Your task to perform on an android device: View the shopping cart on target.com. Add "logitech g910" to the cart on target.com, then select checkout. Image 0: 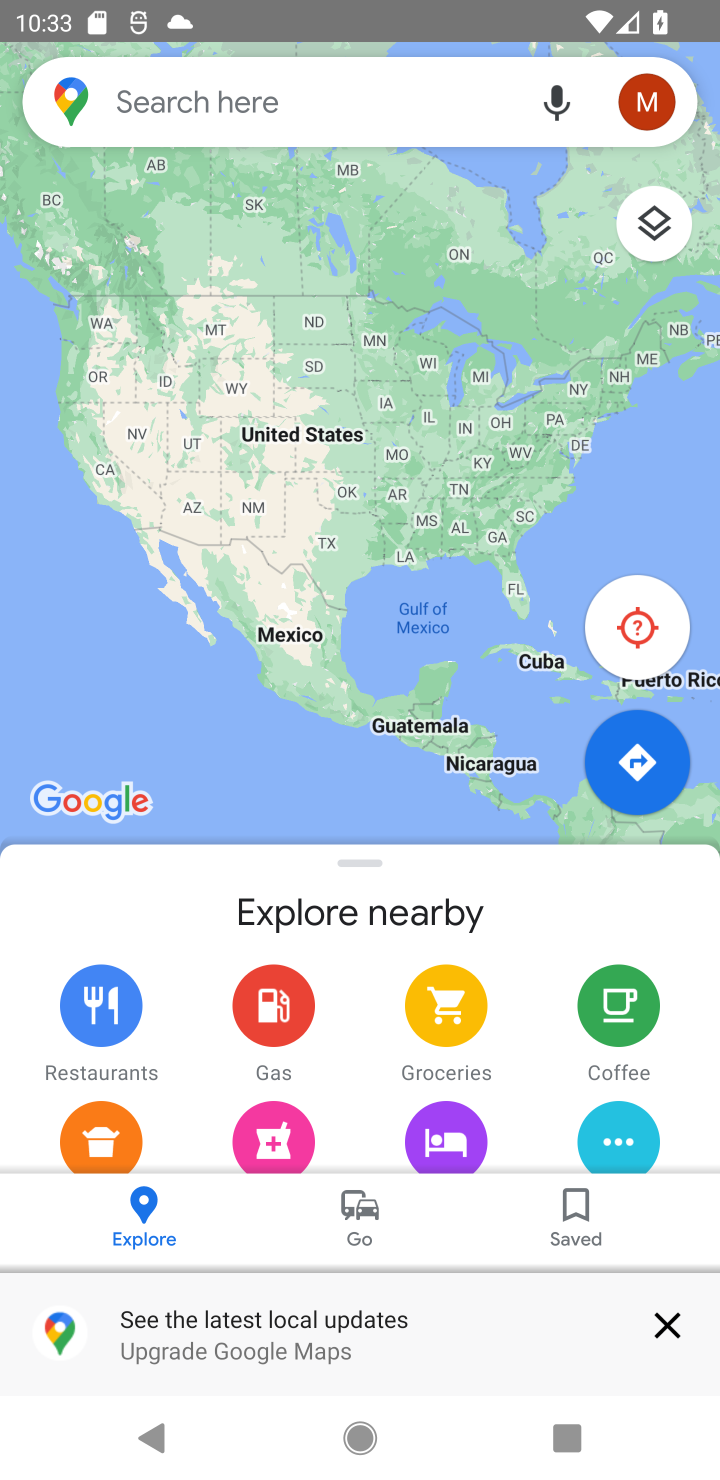
Step 0: press home button
Your task to perform on an android device: View the shopping cart on target.com. Add "logitech g910" to the cart on target.com, then select checkout. Image 1: 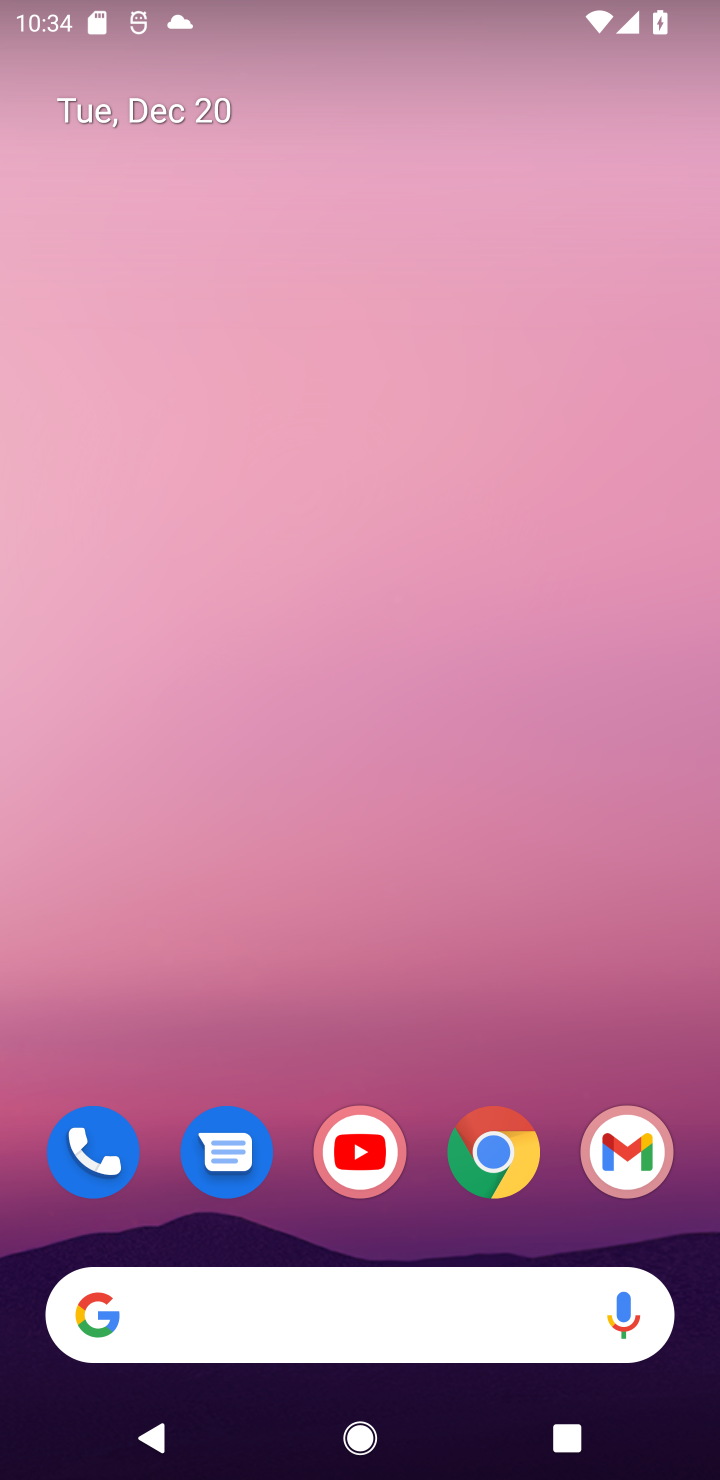
Step 1: click (489, 1171)
Your task to perform on an android device: View the shopping cart on target.com. Add "logitech g910" to the cart on target.com, then select checkout. Image 2: 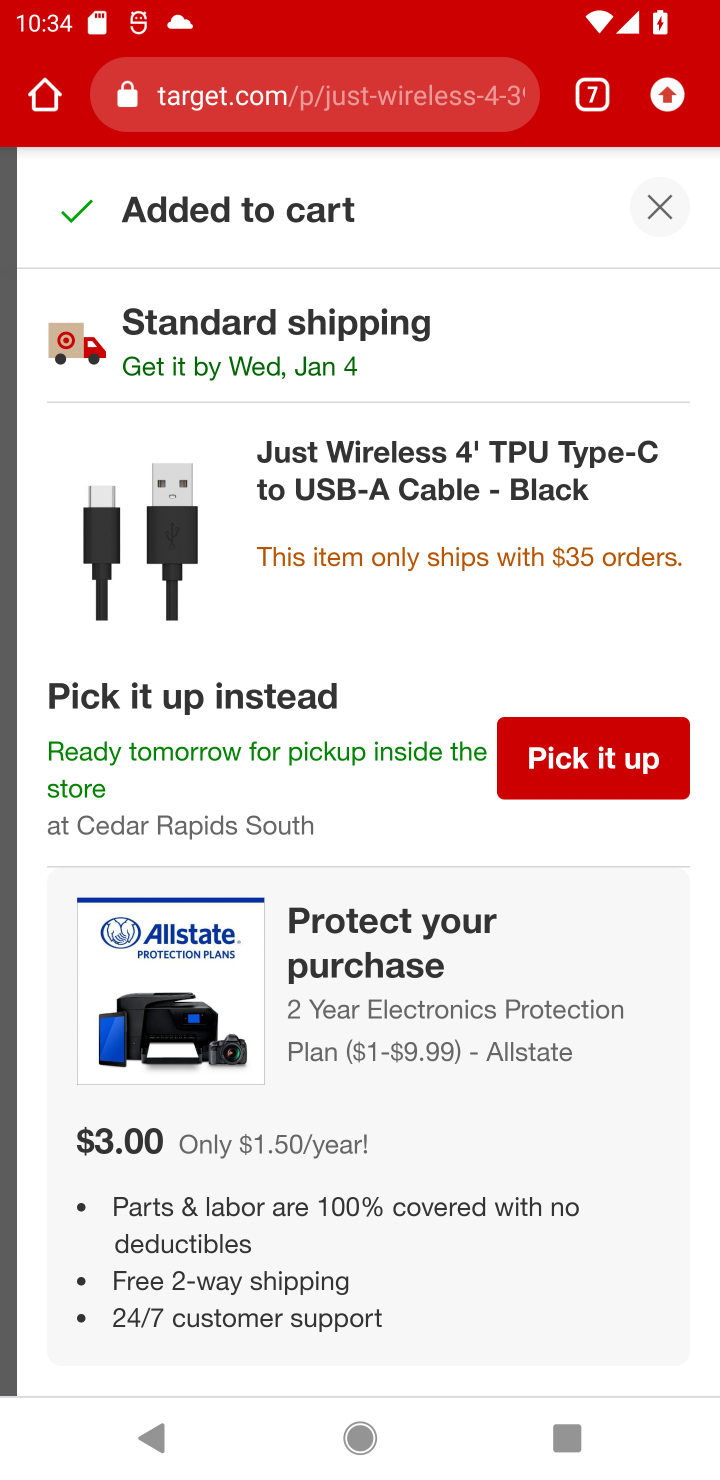
Step 2: click (655, 198)
Your task to perform on an android device: View the shopping cart on target.com. Add "logitech g910" to the cart on target.com, then select checkout. Image 3: 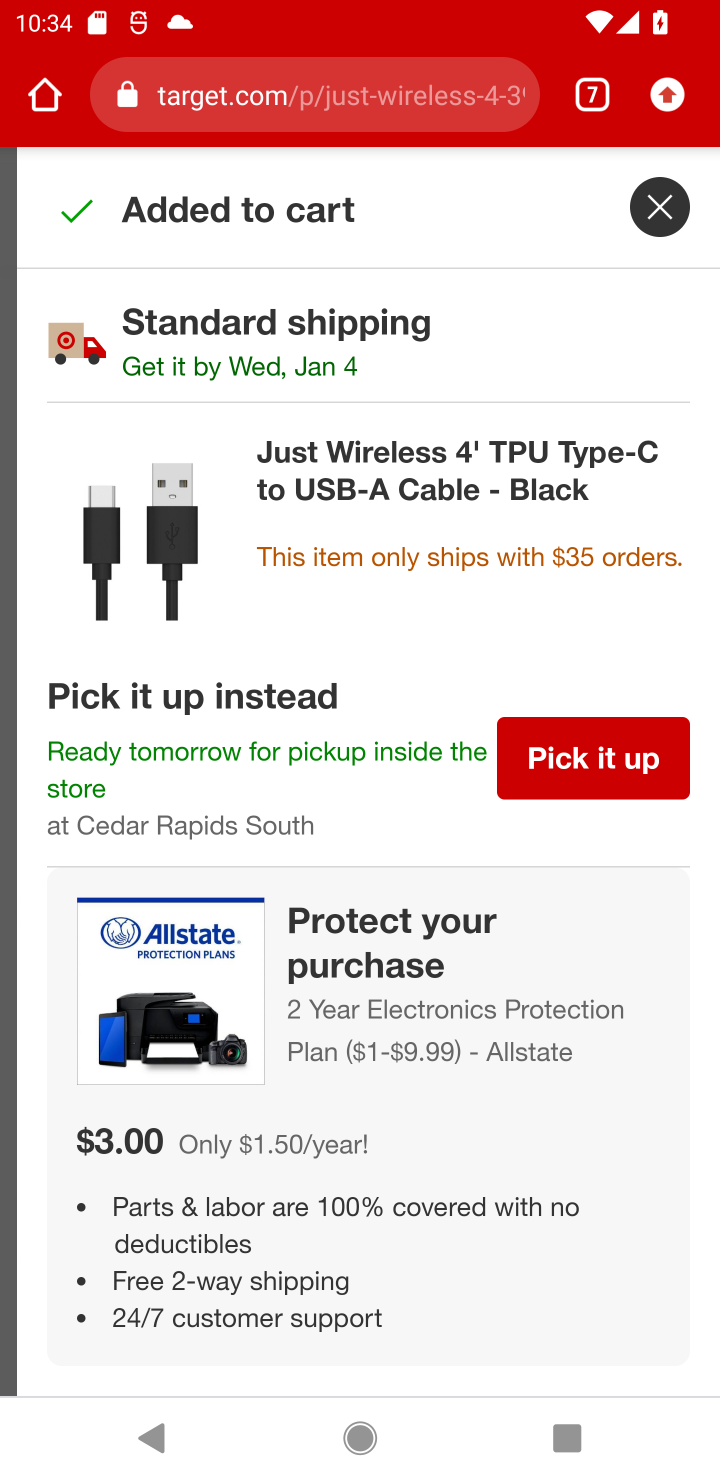
Step 3: click (642, 192)
Your task to perform on an android device: View the shopping cart on target.com. Add "logitech g910" to the cart on target.com, then select checkout. Image 4: 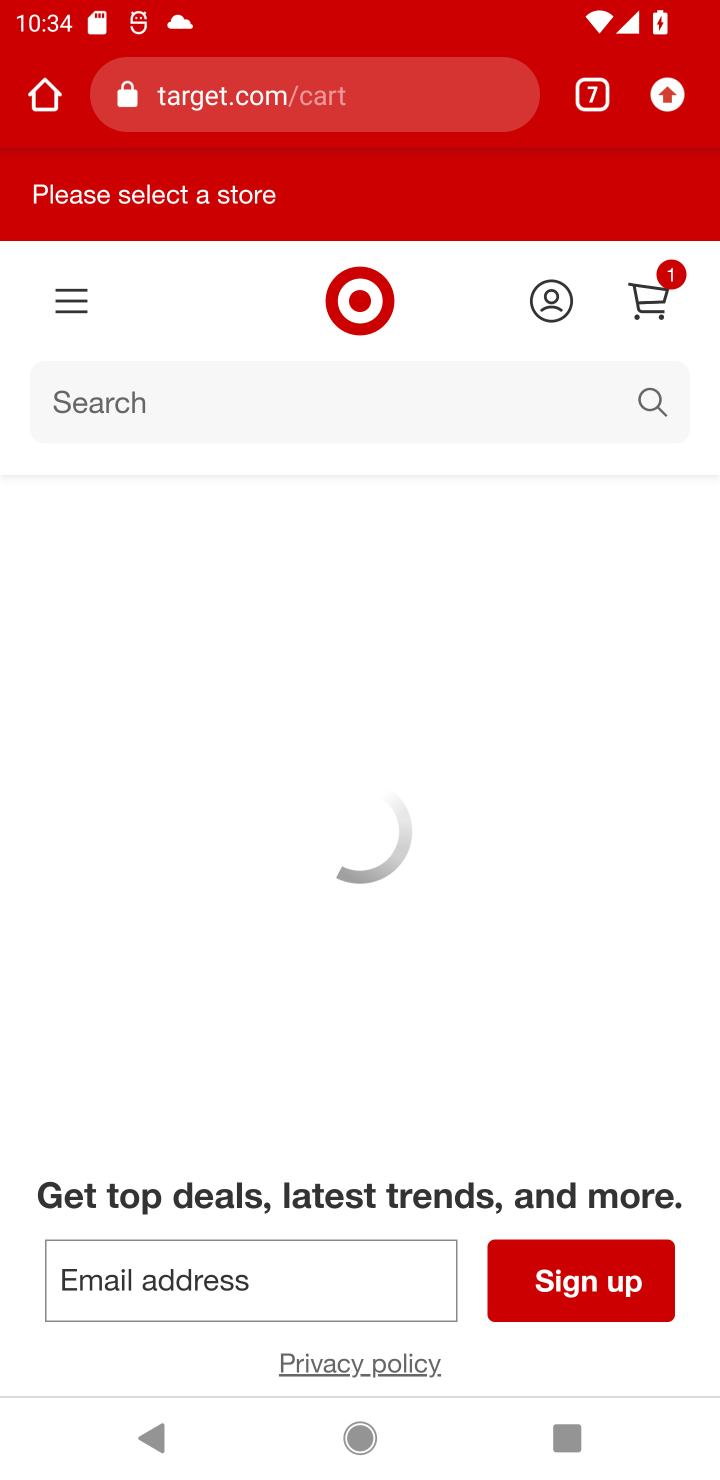
Step 4: click (294, 396)
Your task to perform on an android device: View the shopping cart on target.com. Add "logitech g910" to the cart on target.com, then select checkout. Image 5: 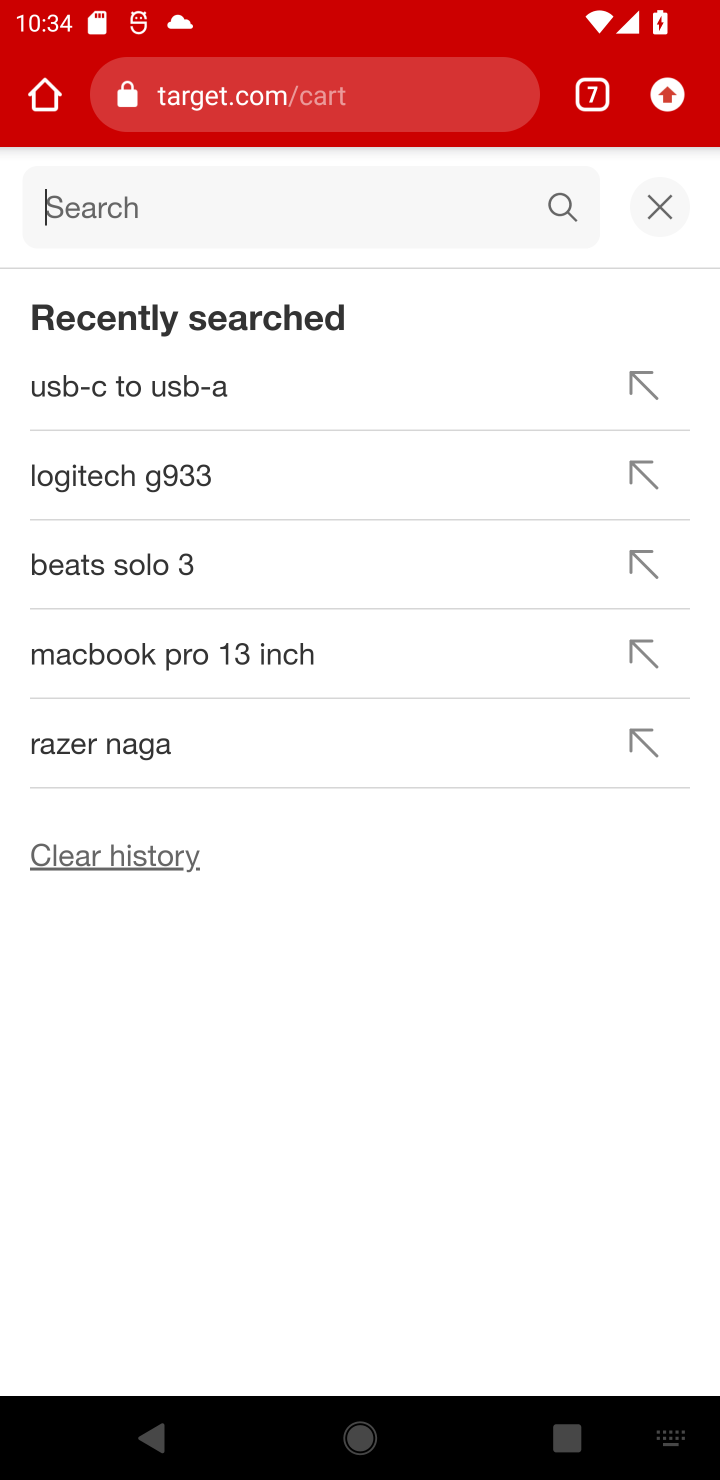
Step 5: type "logitech g910"
Your task to perform on an android device: View the shopping cart on target.com. Add "logitech g910" to the cart on target.com, then select checkout. Image 6: 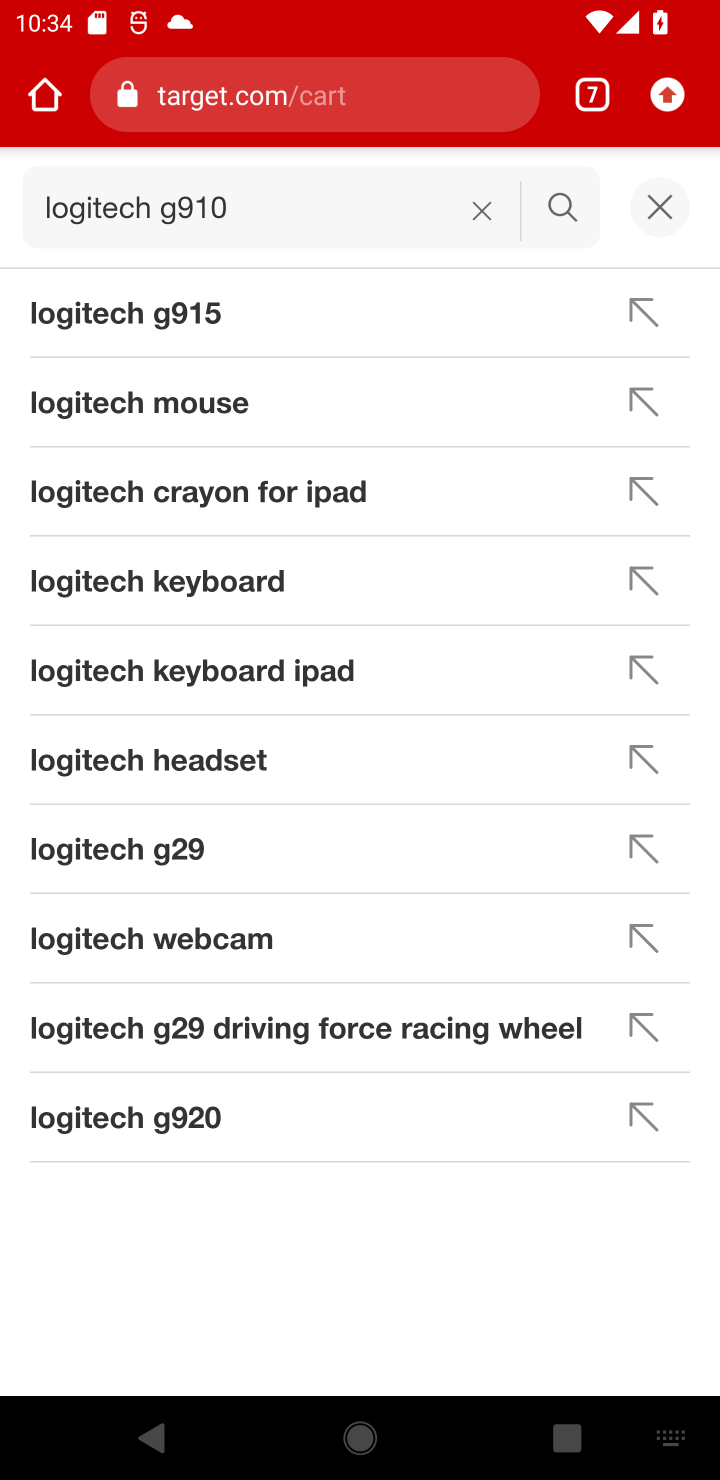
Step 6: click (563, 207)
Your task to perform on an android device: View the shopping cart on target.com. Add "logitech g910" to the cart on target.com, then select checkout. Image 7: 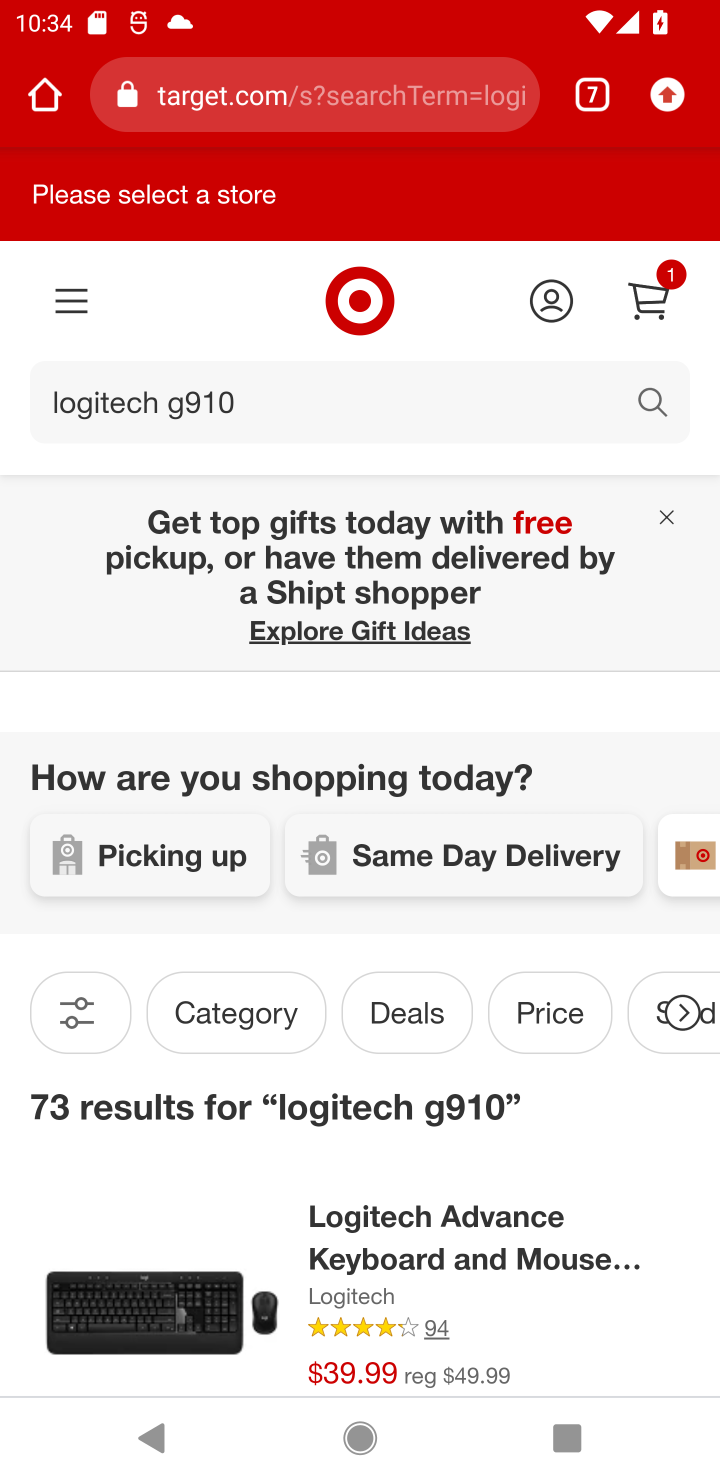
Step 7: task complete